Your task to perform on an android device: turn pop-ups off in chrome Image 0: 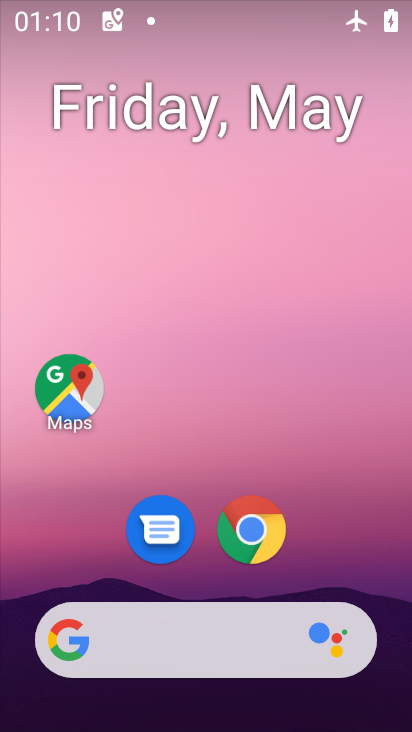
Step 0: drag from (298, 481) to (301, 178)
Your task to perform on an android device: turn pop-ups off in chrome Image 1: 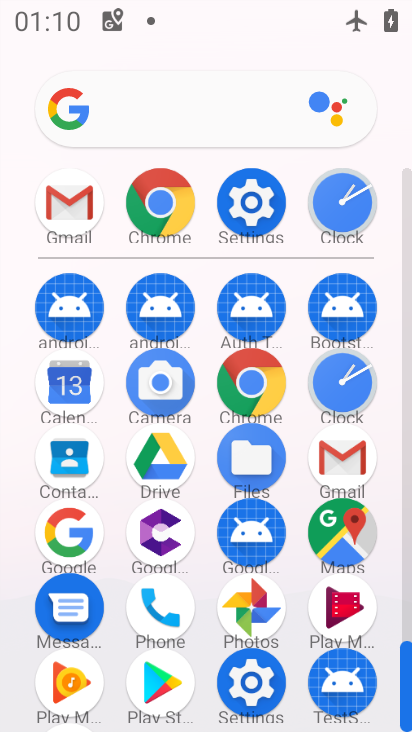
Step 1: click (153, 184)
Your task to perform on an android device: turn pop-ups off in chrome Image 2: 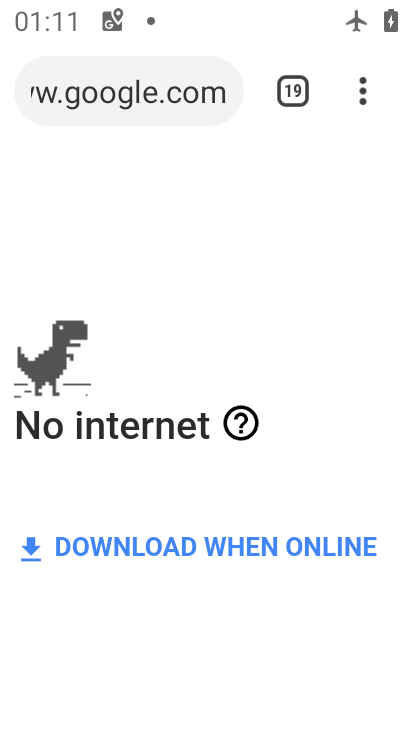
Step 2: click (345, 78)
Your task to perform on an android device: turn pop-ups off in chrome Image 3: 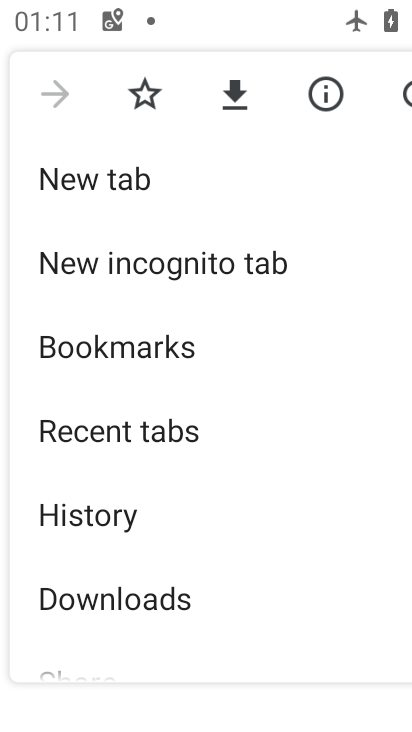
Step 3: drag from (168, 602) to (235, 146)
Your task to perform on an android device: turn pop-ups off in chrome Image 4: 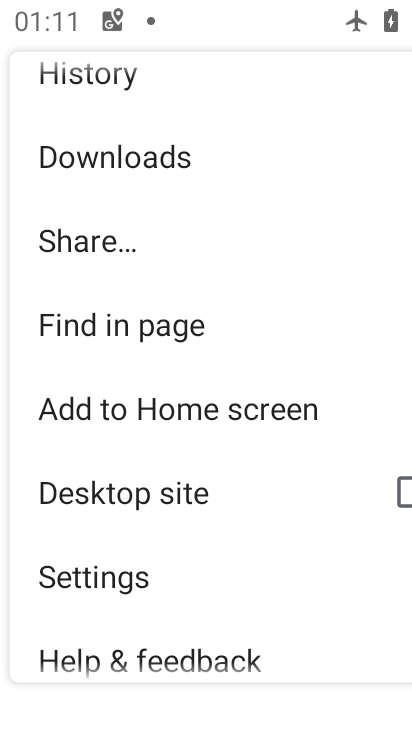
Step 4: click (121, 580)
Your task to perform on an android device: turn pop-ups off in chrome Image 5: 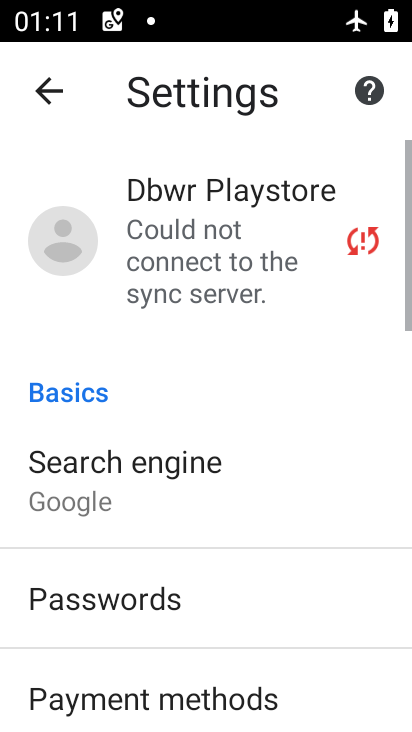
Step 5: drag from (226, 600) to (306, 110)
Your task to perform on an android device: turn pop-ups off in chrome Image 6: 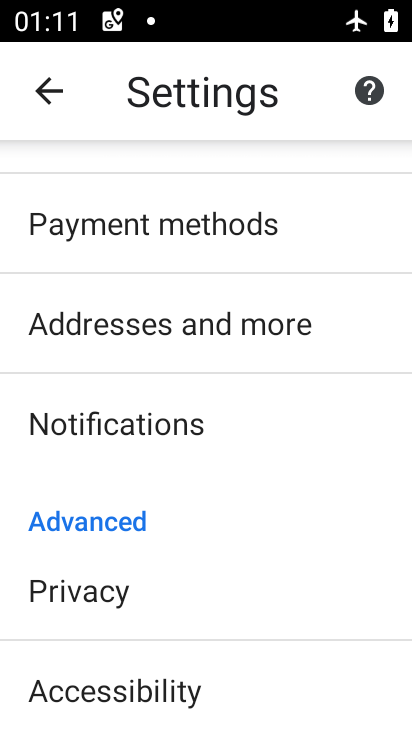
Step 6: drag from (128, 624) to (264, 189)
Your task to perform on an android device: turn pop-ups off in chrome Image 7: 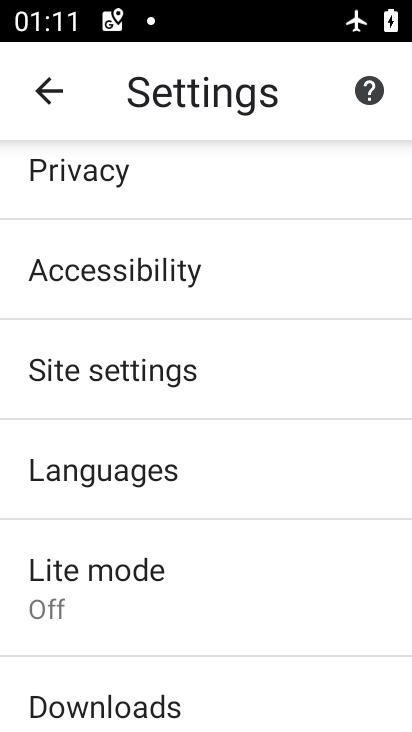
Step 7: click (102, 362)
Your task to perform on an android device: turn pop-ups off in chrome Image 8: 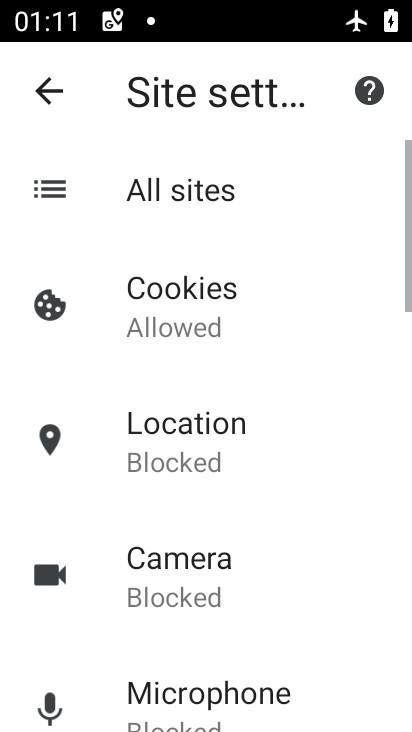
Step 8: drag from (222, 583) to (285, 125)
Your task to perform on an android device: turn pop-ups off in chrome Image 9: 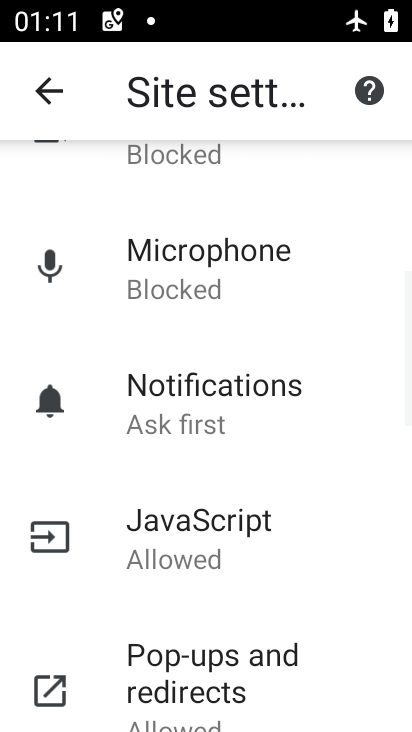
Step 9: click (225, 707)
Your task to perform on an android device: turn pop-ups off in chrome Image 10: 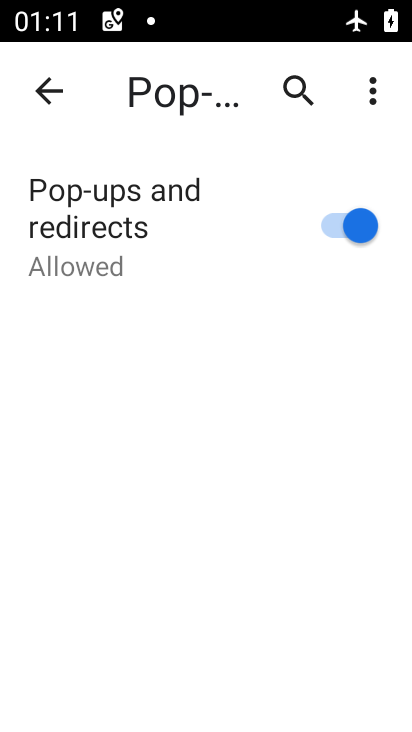
Step 10: click (349, 231)
Your task to perform on an android device: turn pop-ups off in chrome Image 11: 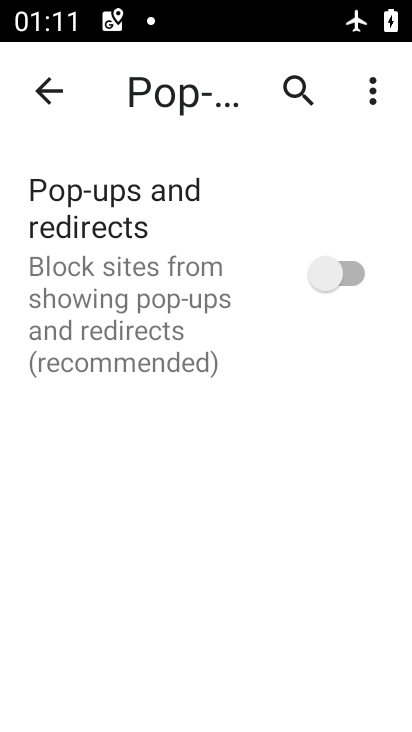
Step 11: task complete